Your task to perform on an android device: turn off improve location accuracy Image 0: 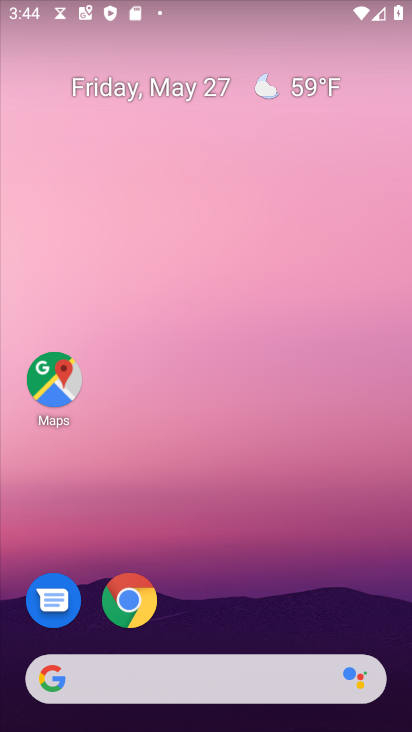
Step 0: drag from (239, 566) to (199, 194)
Your task to perform on an android device: turn off improve location accuracy Image 1: 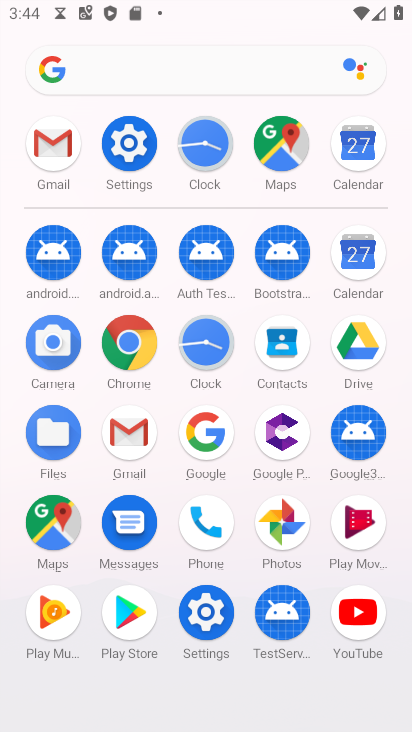
Step 1: click (128, 142)
Your task to perform on an android device: turn off improve location accuracy Image 2: 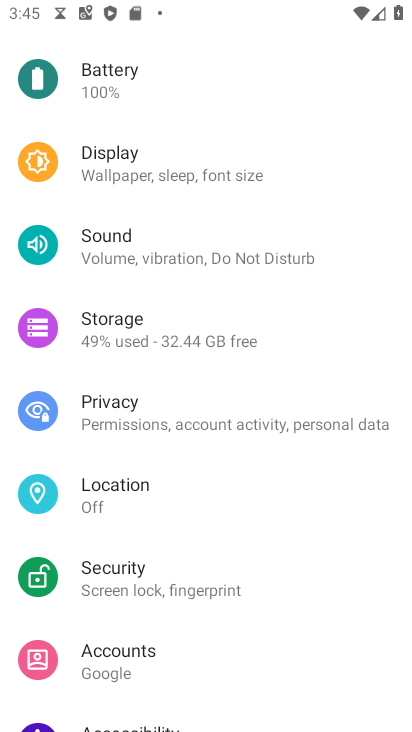
Step 2: click (133, 489)
Your task to perform on an android device: turn off improve location accuracy Image 3: 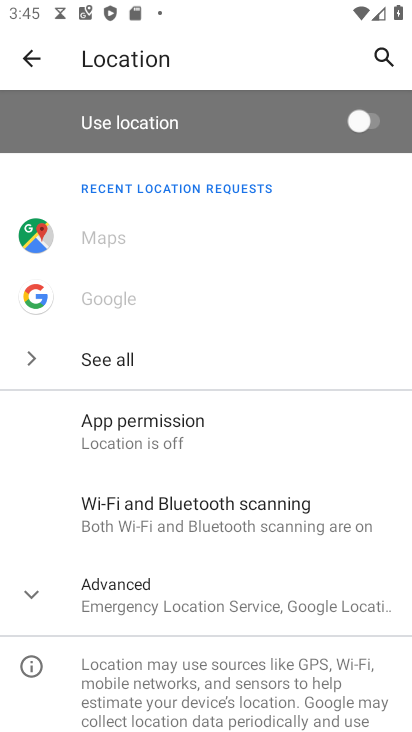
Step 3: click (187, 612)
Your task to perform on an android device: turn off improve location accuracy Image 4: 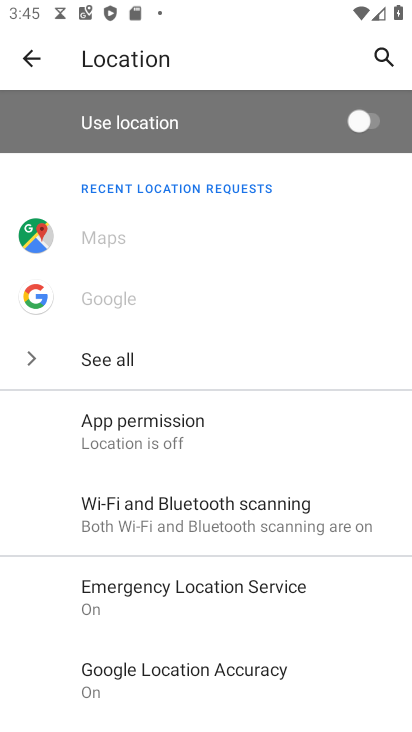
Step 4: click (189, 664)
Your task to perform on an android device: turn off improve location accuracy Image 5: 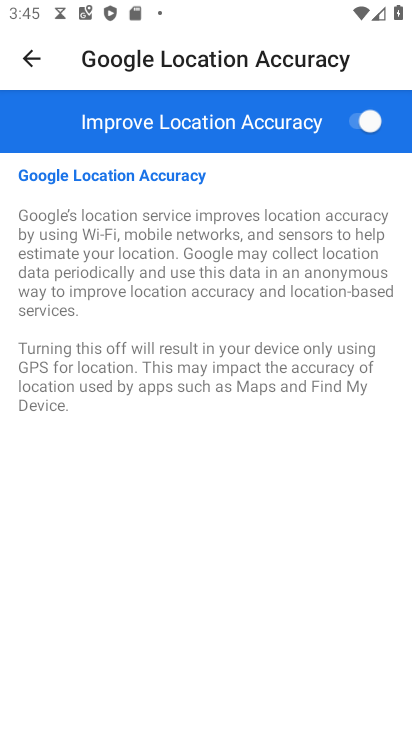
Step 5: click (357, 123)
Your task to perform on an android device: turn off improve location accuracy Image 6: 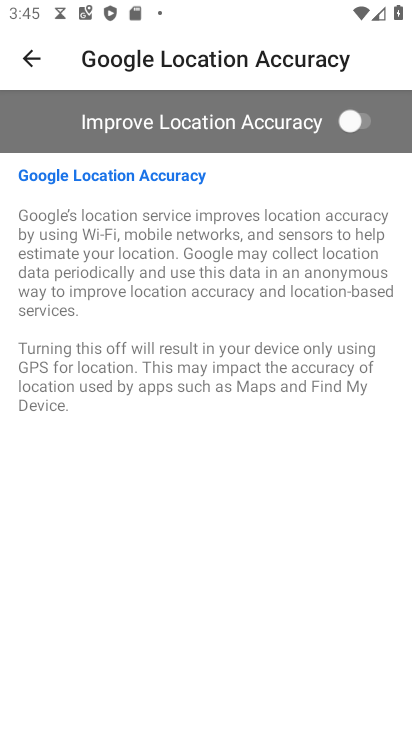
Step 6: task complete